Your task to perform on an android device: What's the weather going to be tomorrow? Image 0: 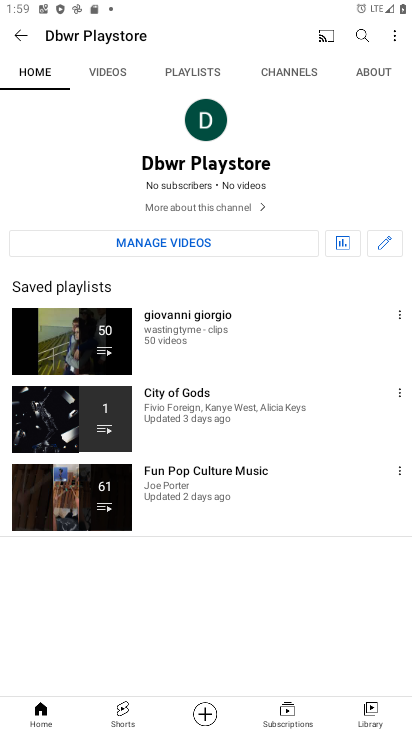
Step 0: press home button
Your task to perform on an android device: What's the weather going to be tomorrow? Image 1: 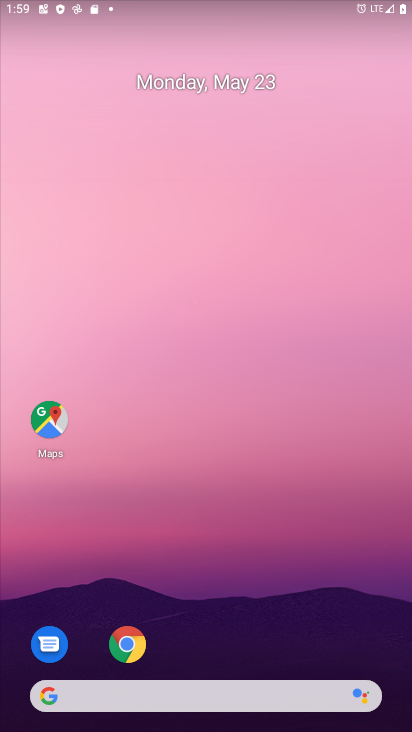
Step 1: drag from (310, 621) to (290, 11)
Your task to perform on an android device: What's the weather going to be tomorrow? Image 2: 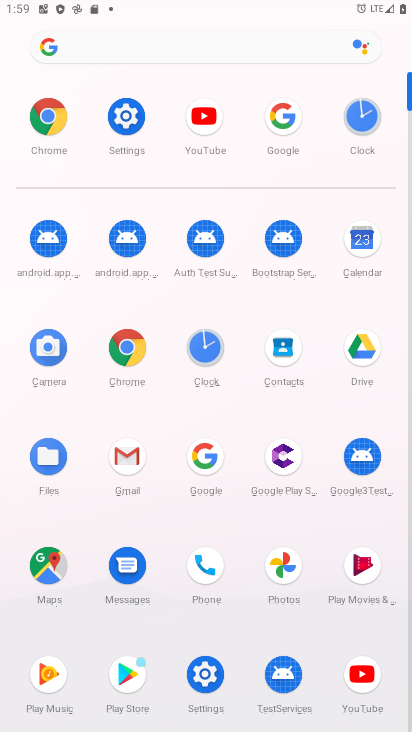
Step 2: click (220, 461)
Your task to perform on an android device: What's the weather going to be tomorrow? Image 3: 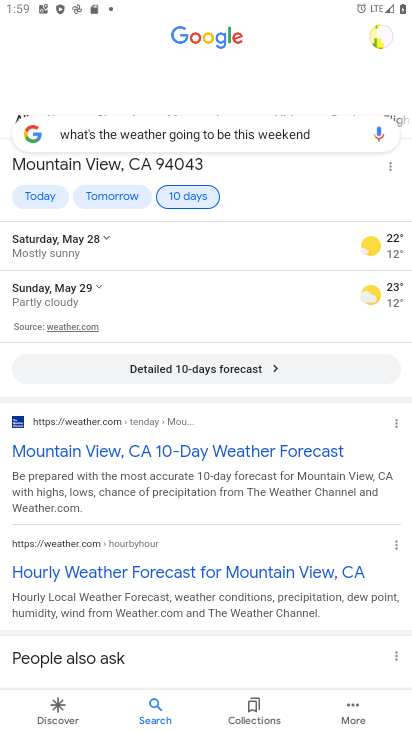
Step 3: press back button
Your task to perform on an android device: What's the weather going to be tomorrow? Image 4: 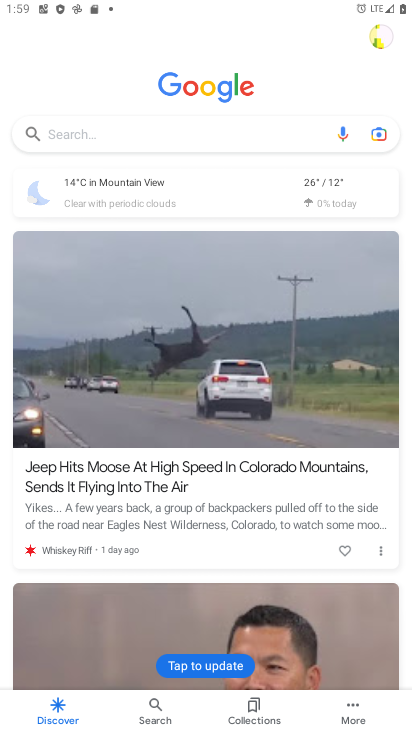
Step 4: click (110, 139)
Your task to perform on an android device: What's the weather going to be tomorrow? Image 5: 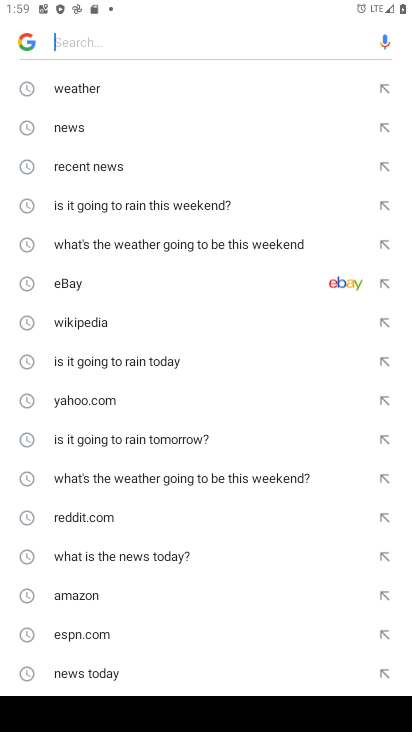
Step 5: drag from (168, 635) to (221, 305)
Your task to perform on an android device: What's the weather going to be tomorrow? Image 6: 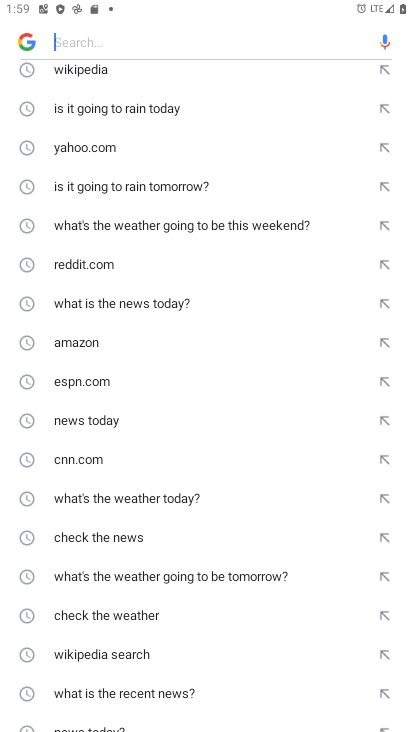
Step 6: click (211, 581)
Your task to perform on an android device: What's the weather going to be tomorrow? Image 7: 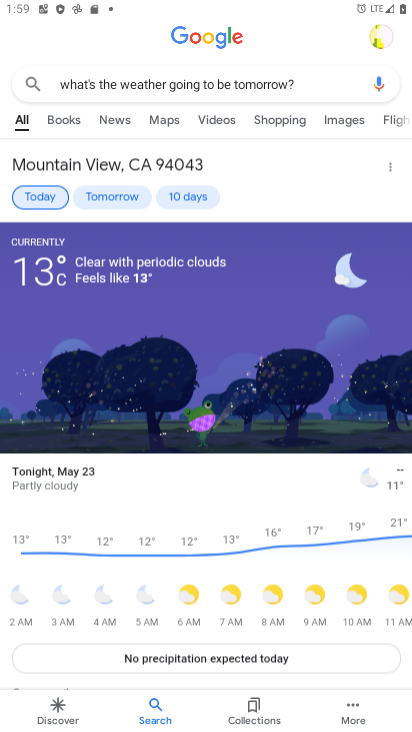
Step 7: task complete